Your task to perform on an android device: Open Google Chrome Image 0: 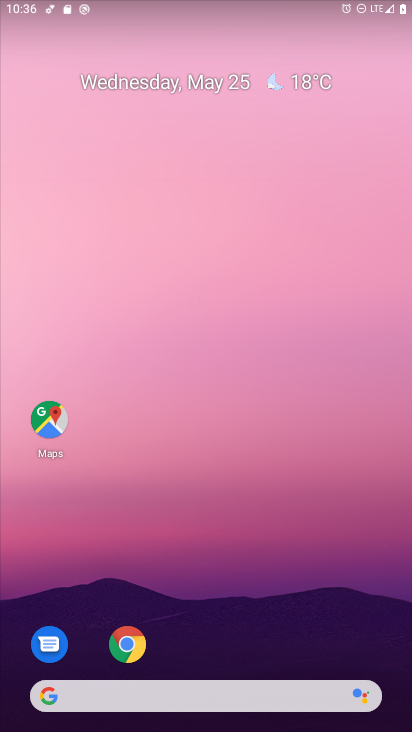
Step 0: press home button
Your task to perform on an android device: Open Google Chrome Image 1: 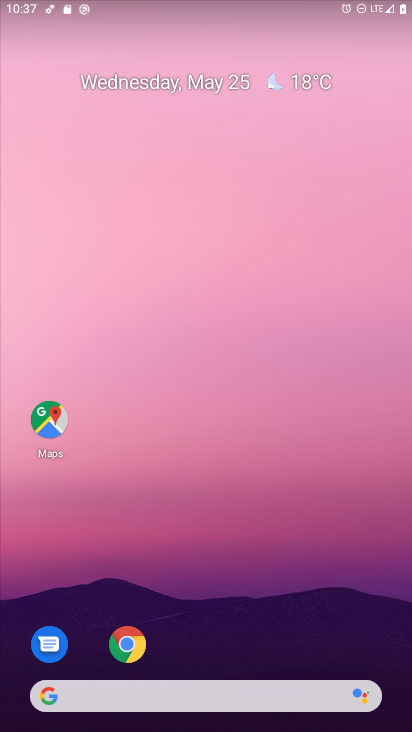
Step 1: click (124, 637)
Your task to perform on an android device: Open Google Chrome Image 2: 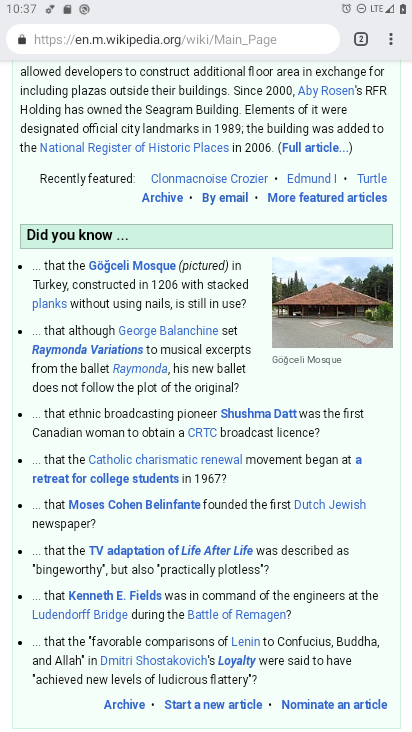
Step 2: task complete